Your task to perform on an android device: toggle javascript in the chrome app Image 0: 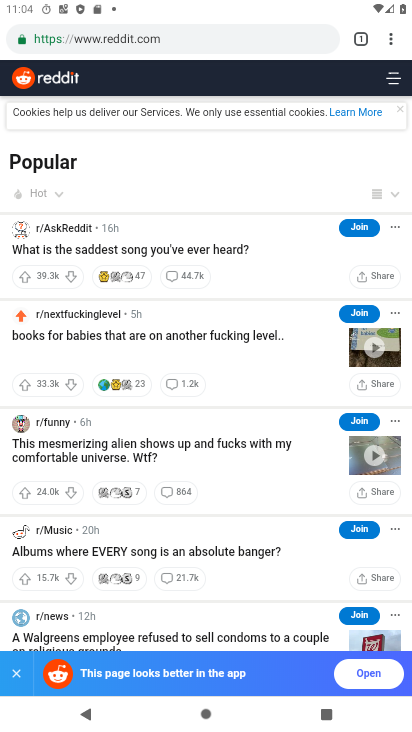
Step 0: press home button
Your task to perform on an android device: toggle javascript in the chrome app Image 1: 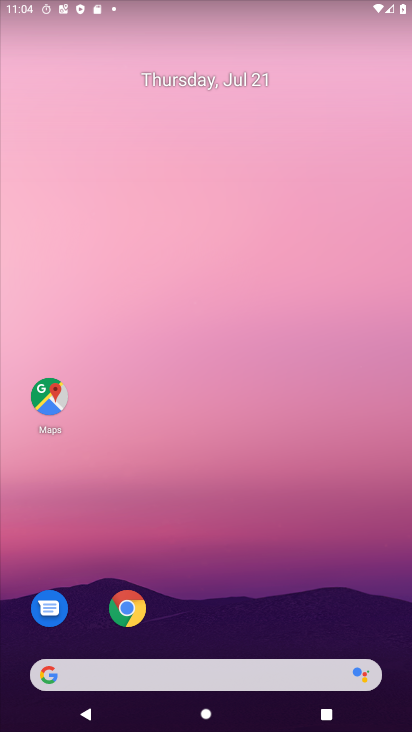
Step 1: click (128, 609)
Your task to perform on an android device: toggle javascript in the chrome app Image 2: 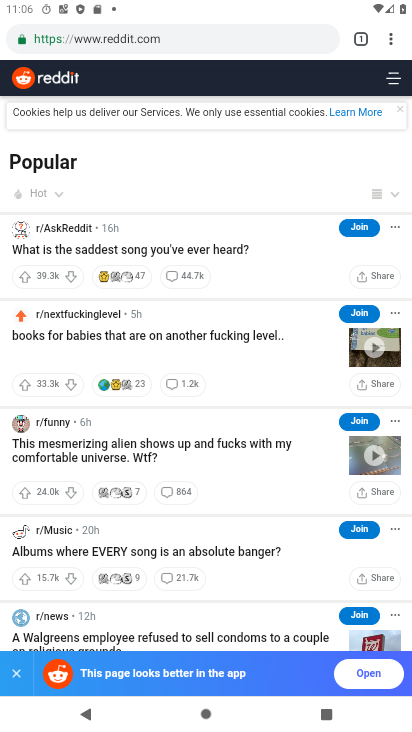
Step 2: click (386, 37)
Your task to perform on an android device: toggle javascript in the chrome app Image 3: 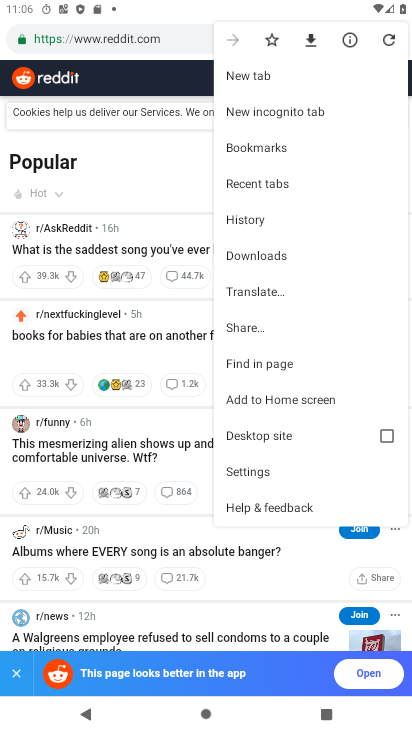
Step 3: click (389, 41)
Your task to perform on an android device: toggle javascript in the chrome app Image 4: 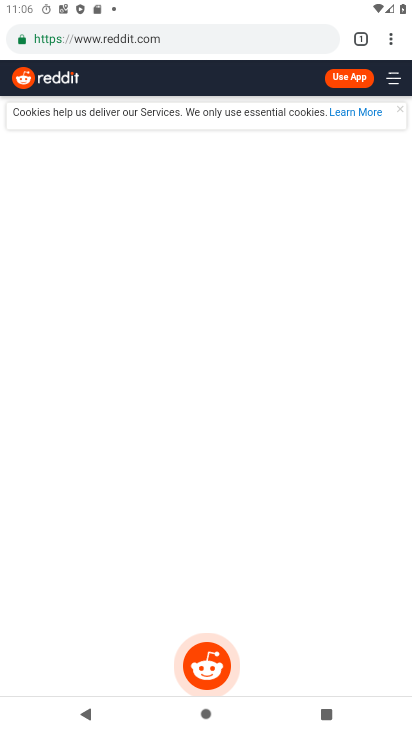
Step 4: click (387, 41)
Your task to perform on an android device: toggle javascript in the chrome app Image 5: 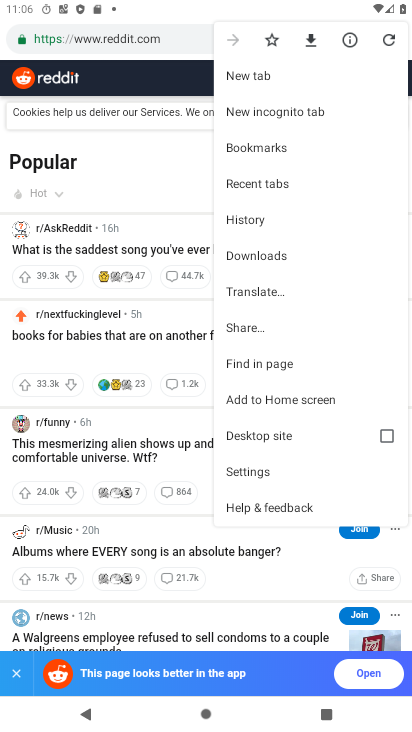
Step 5: click (258, 466)
Your task to perform on an android device: toggle javascript in the chrome app Image 6: 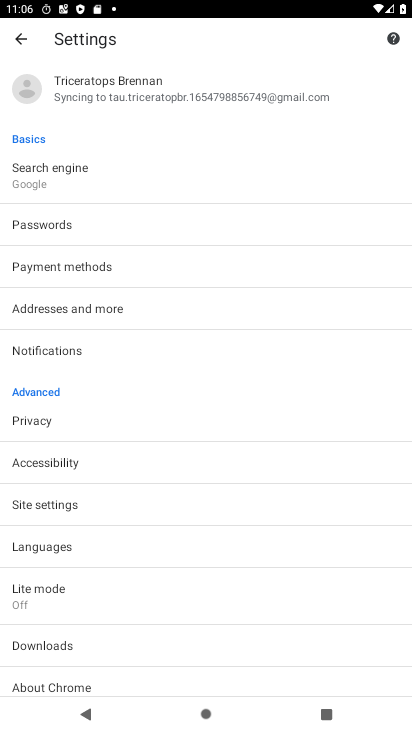
Step 6: click (33, 500)
Your task to perform on an android device: toggle javascript in the chrome app Image 7: 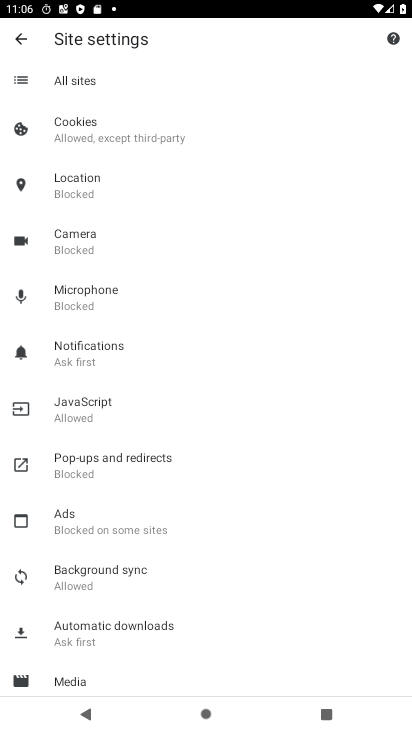
Step 7: click (71, 405)
Your task to perform on an android device: toggle javascript in the chrome app Image 8: 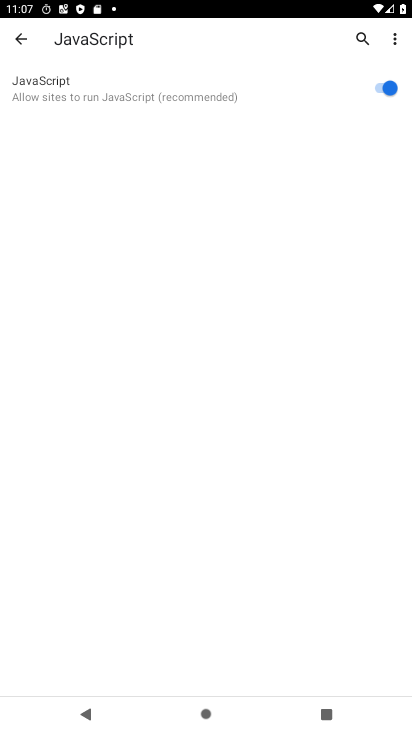
Step 8: click (379, 89)
Your task to perform on an android device: toggle javascript in the chrome app Image 9: 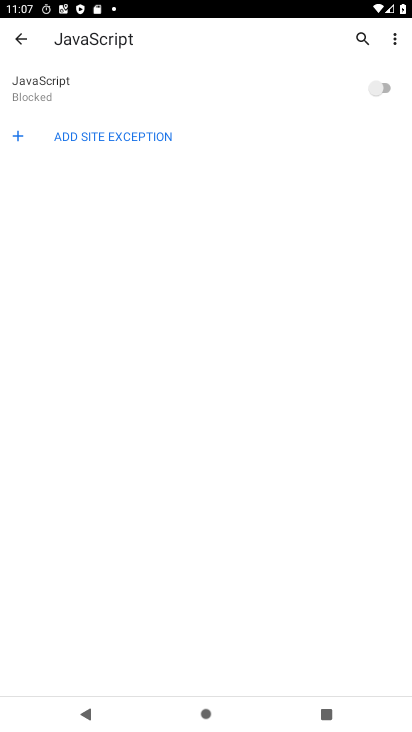
Step 9: task complete